Your task to perform on an android device: Open Google Chrome and open the bookmarks view Image 0: 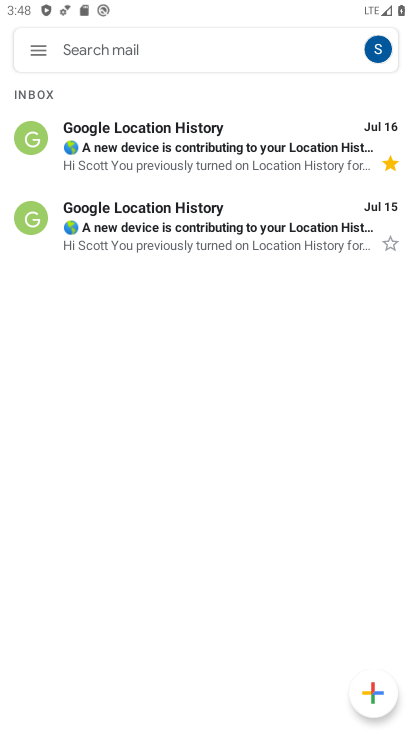
Step 0: press home button
Your task to perform on an android device: Open Google Chrome and open the bookmarks view Image 1: 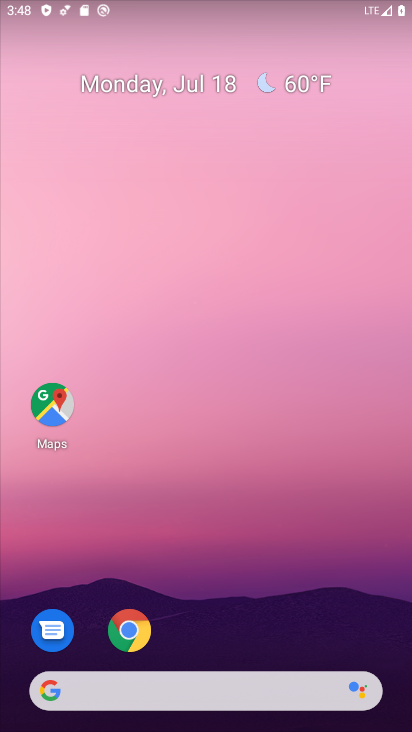
Step 1: click (120, 635)
Your task to perform on an android device: Open Google Chrome and open the bookmarks view Image 2: 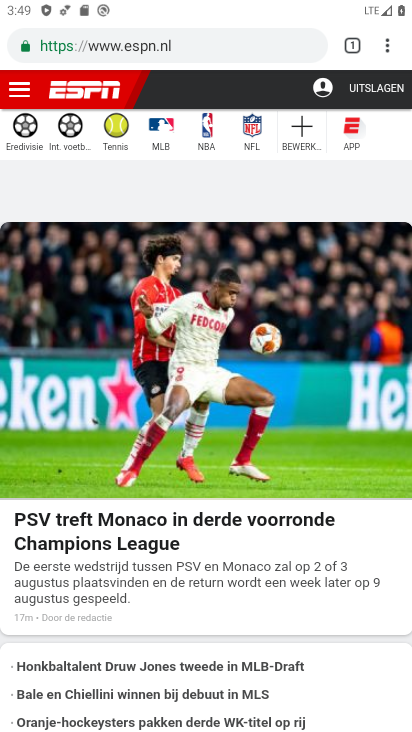
Step 2: click (390, 54)
Your task to perform on an android device: Open Google Chrome and open the bookmarks view Image 3: 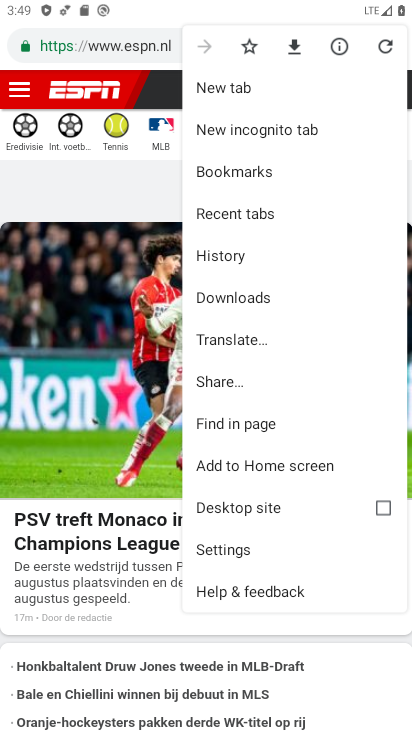
Step 3: click (231, 171)
Your task to perform on an android device: Open Google Chrome and open the bookmarks view Image 4: 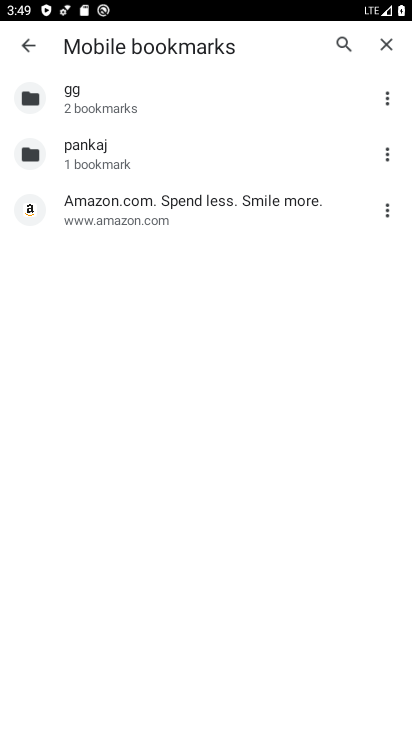
Step 4: task complete